Your task to perform on an android device: check battery use Image 0: 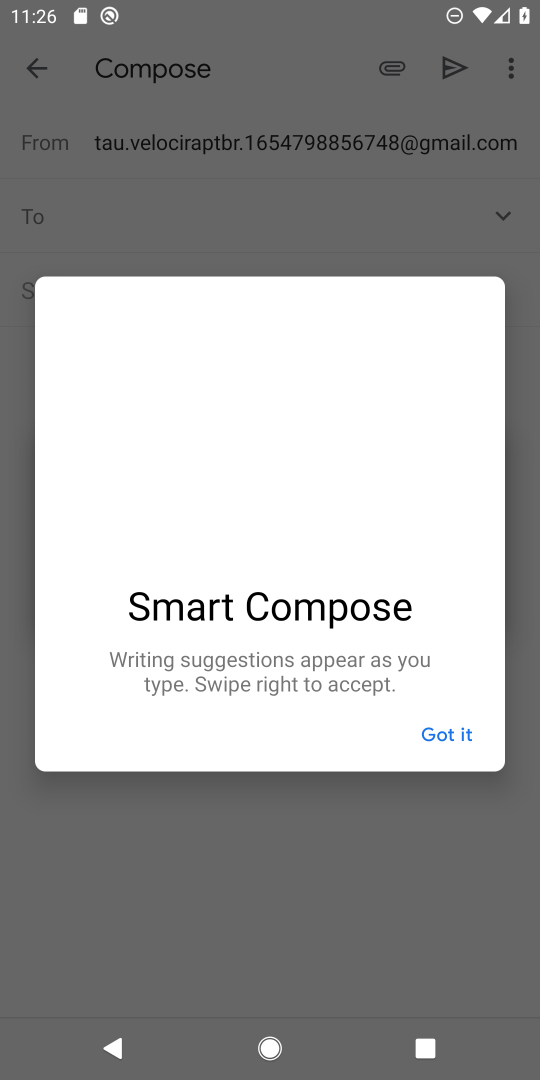
Step 0: press back button
Your task to perform on an android device: check battery use Image 1: 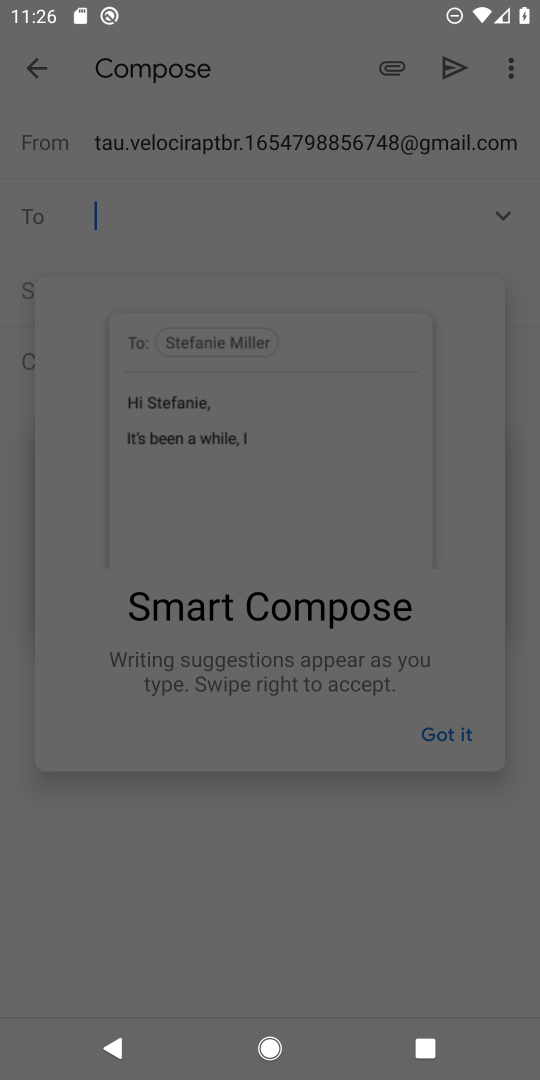
Step 1: press home button
Your task to perform on an android device: check battery use Image 2: 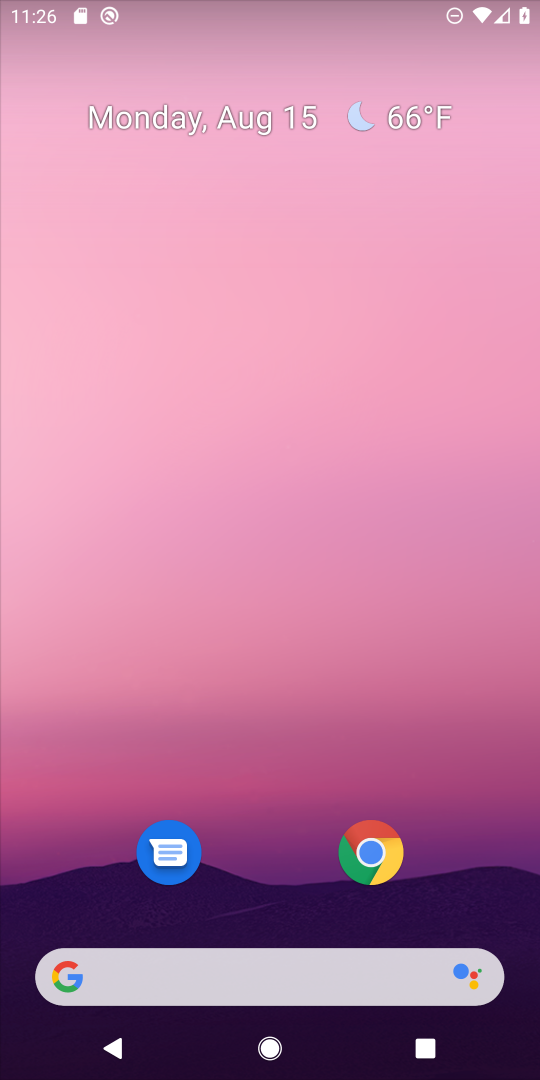
Step 2: drag from (281, 850) to (376, 10)
Your task to perform on an android device: check battery use Image 3: 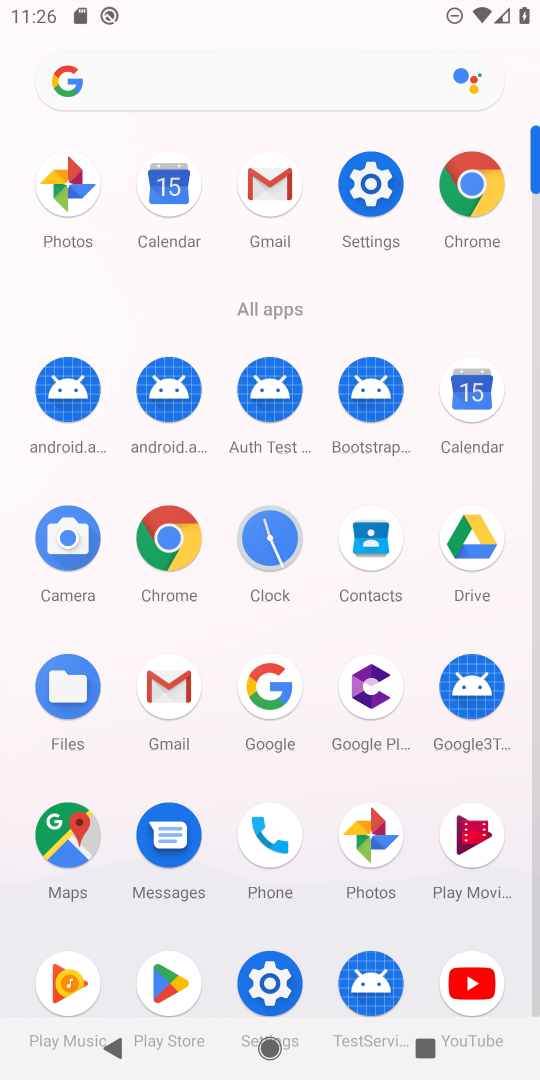
Step 3: click (371, 188)
Your task to perform on an android device: check battery use Image 4: 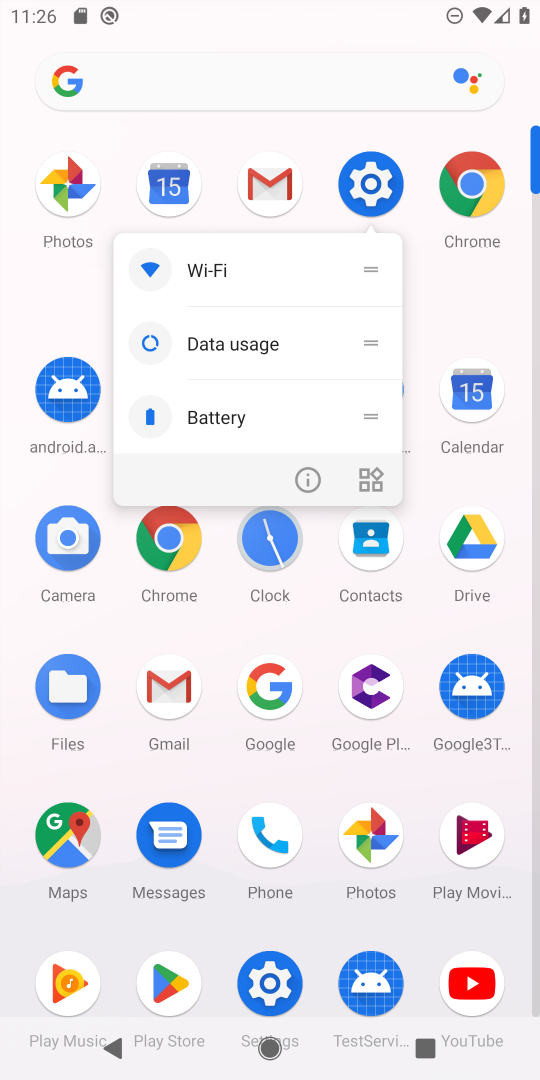
Step 4: click (368, 185)
Your task to perform on an android device: check battery use Image 5: 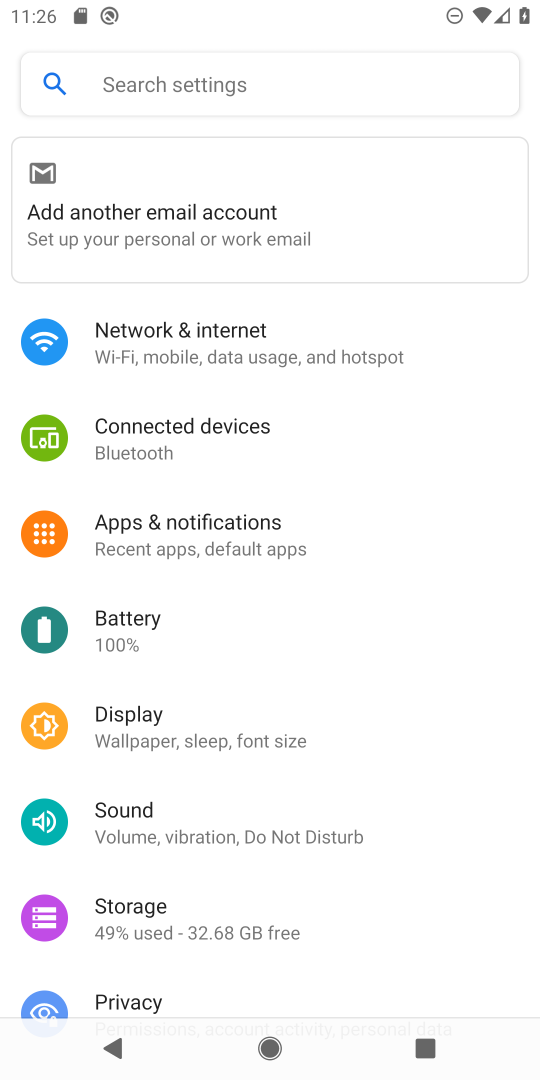
Step 5: click (139, 620)
Your task to perform on an android device: check battery use Image 6: 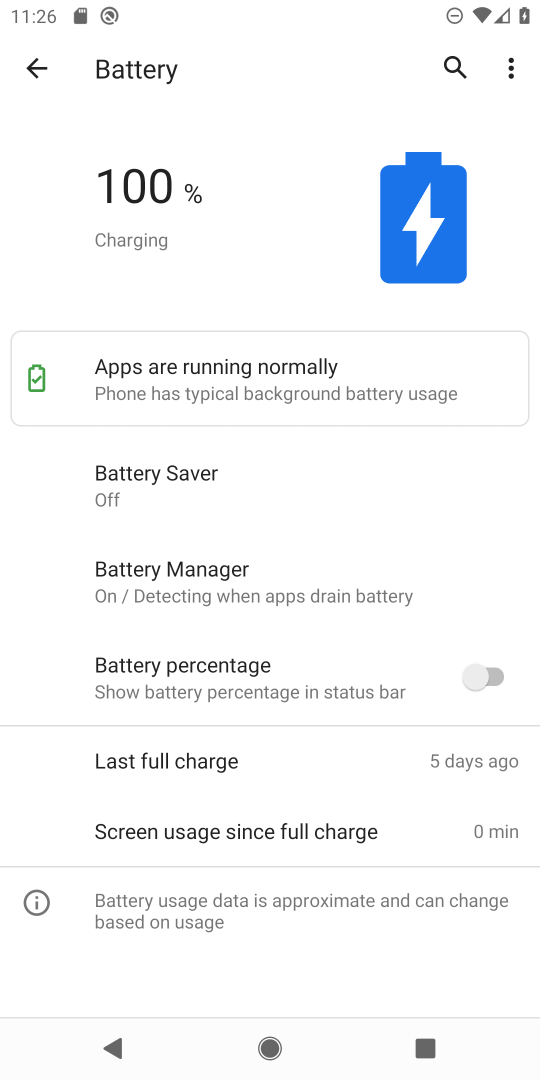
Step 6: click (507, 67)
Your task to perform on an android device: check battery use Image 7: 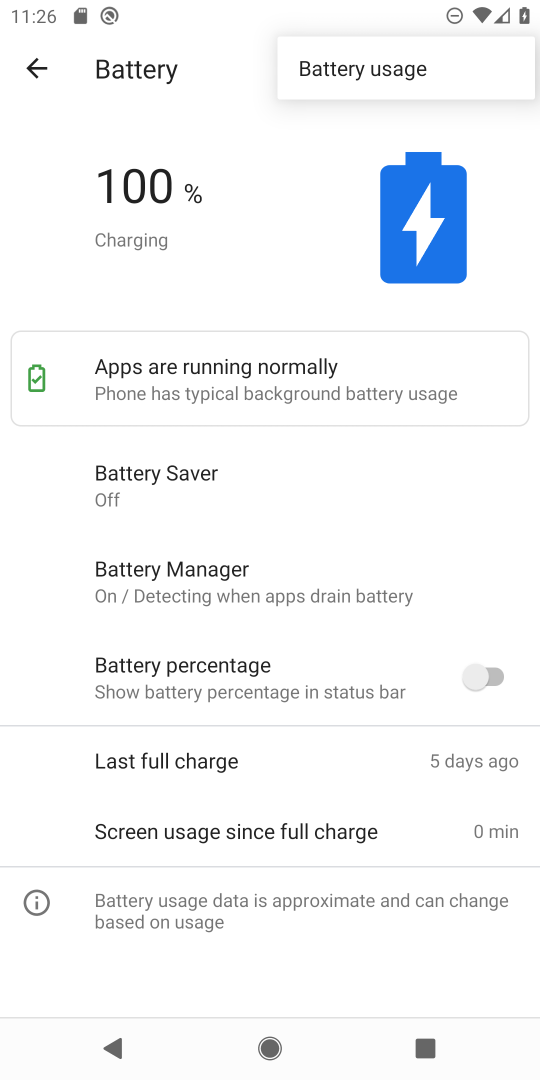
Step 7: click (362, 74)
Your task to perform on an android device: check battery use Image 8: 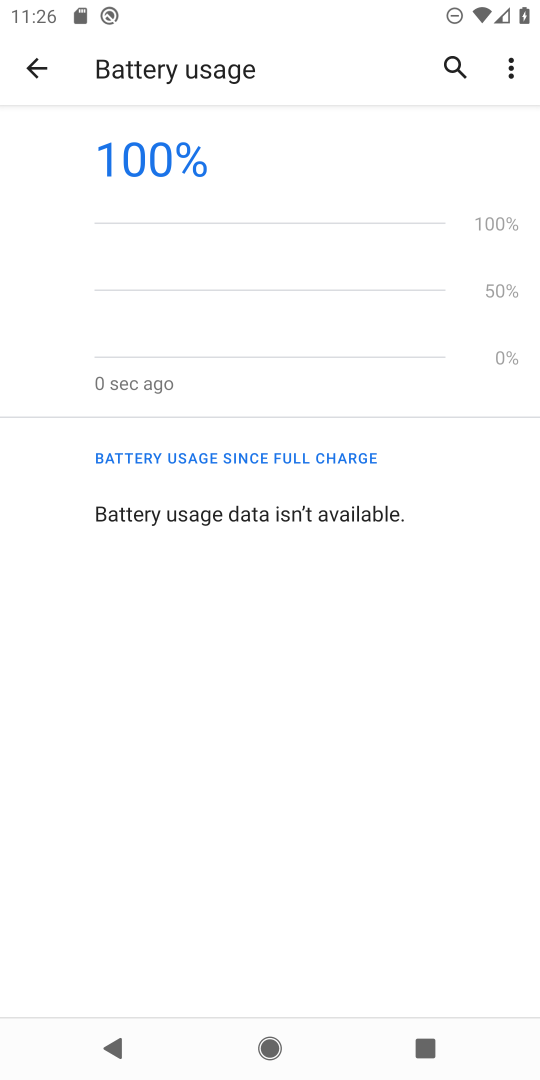
Step 8: task complete